Your task to perform on an android device: Open Maps and search for coffee Image 0: 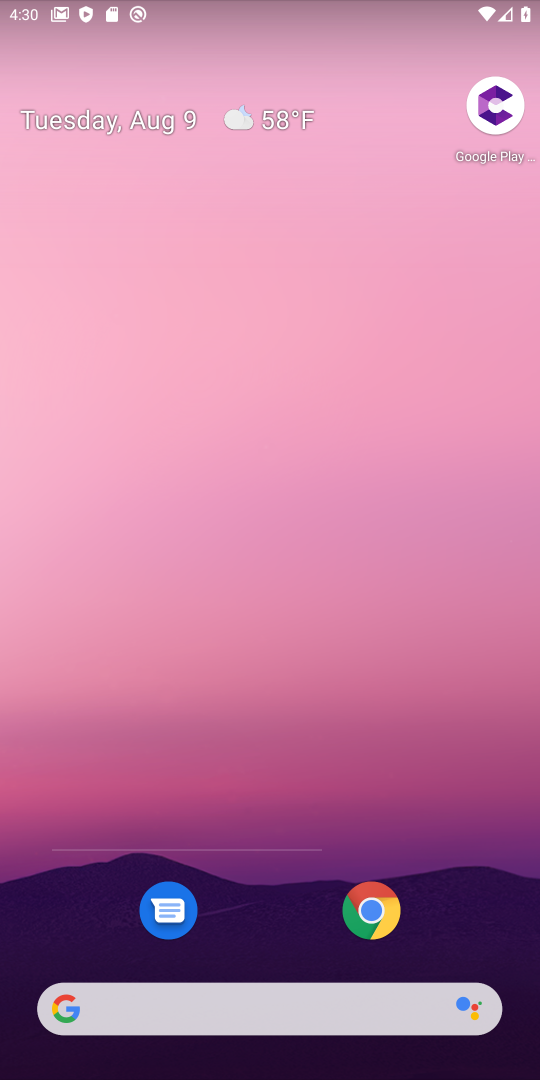
Step 0: press back button
Your task to perform on an android device: Open Maps and search for coffee Image 1: 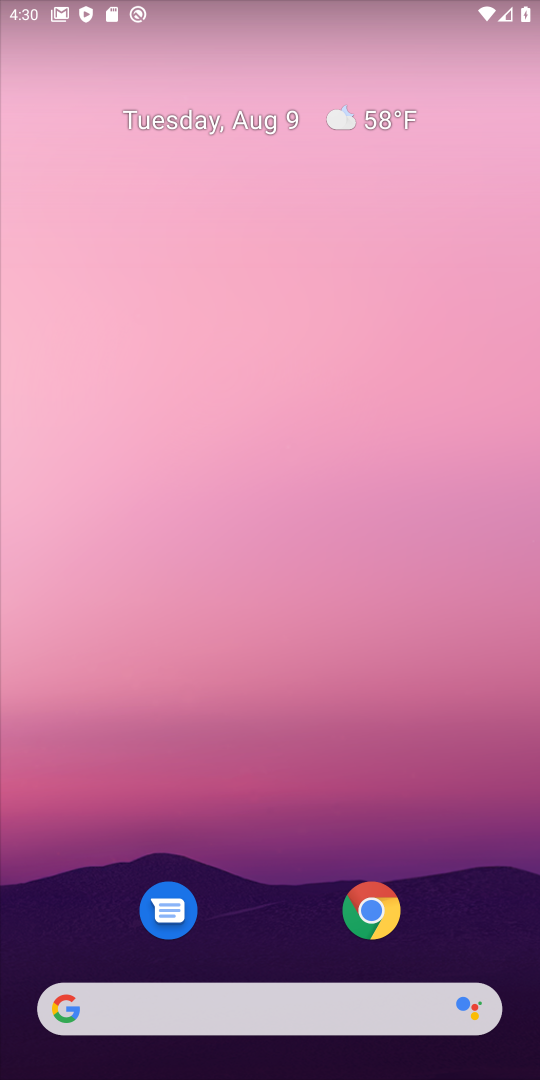
Step 1: drag from (198, 760) to (227, 369)
Your task to perform on an android device: Open Maps and search for coffee Image 2: 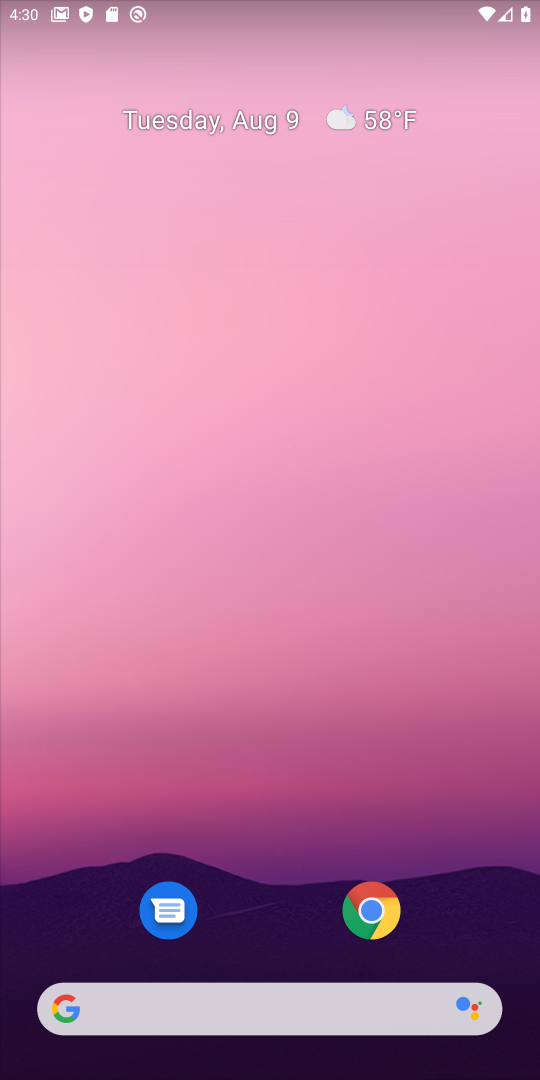
Step 2: drag from (302, 925) to (265, 256)
Your task to perform on an android device: Open Maps and search for coffee Image 3: 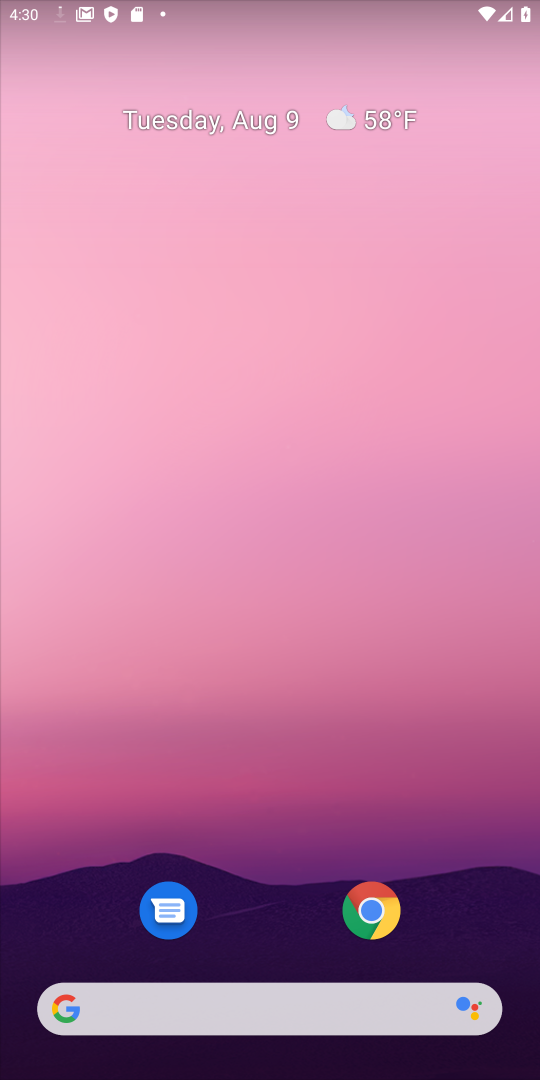
Step 3: drag from (265, 801) to (265, 223)
Your task to perform on an android device: Open Maps and search for coffee Image 4: 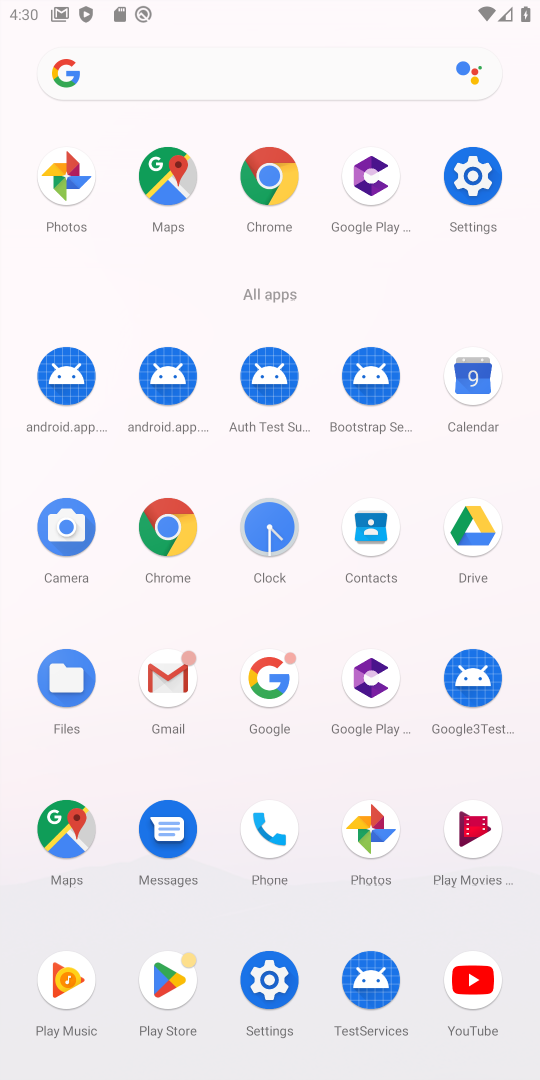
Step 4: drag from (289, 931) to (287, 315)
Your task to perform on an android device: Open Maps and search for coffee Image 5: 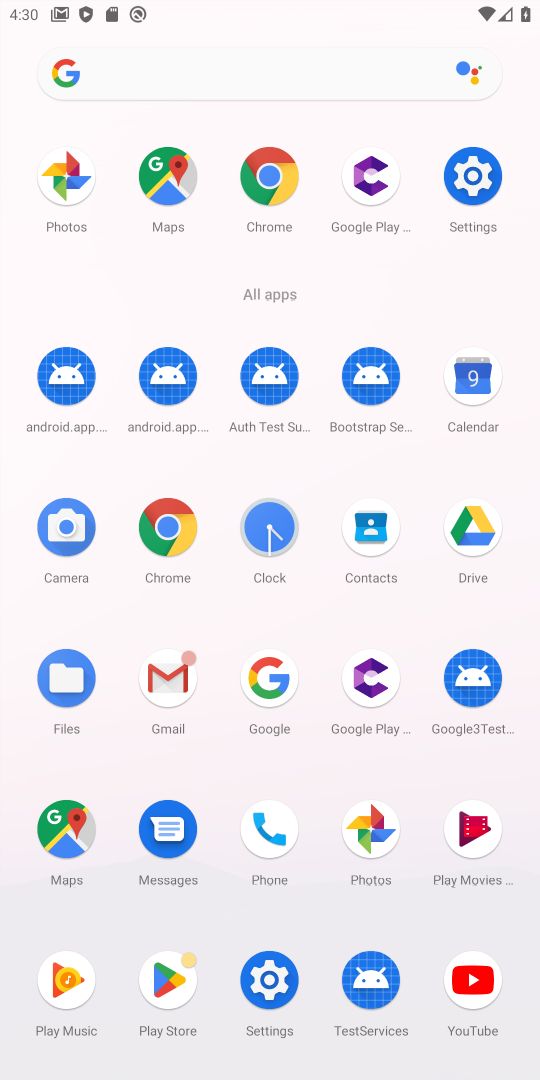
Step 5: click (472, 191)
Your task to perform on an android device: Open Maps and search for coffee Image 6: 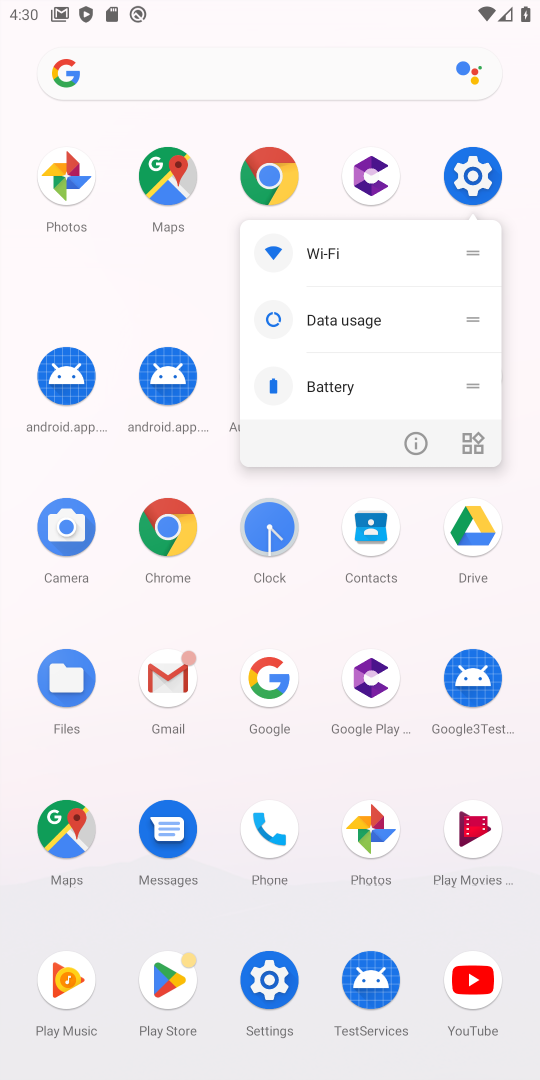
Step 6: click (472, 191)
Your task to perform on an android device: Open Maps and search for coffee Image 7: 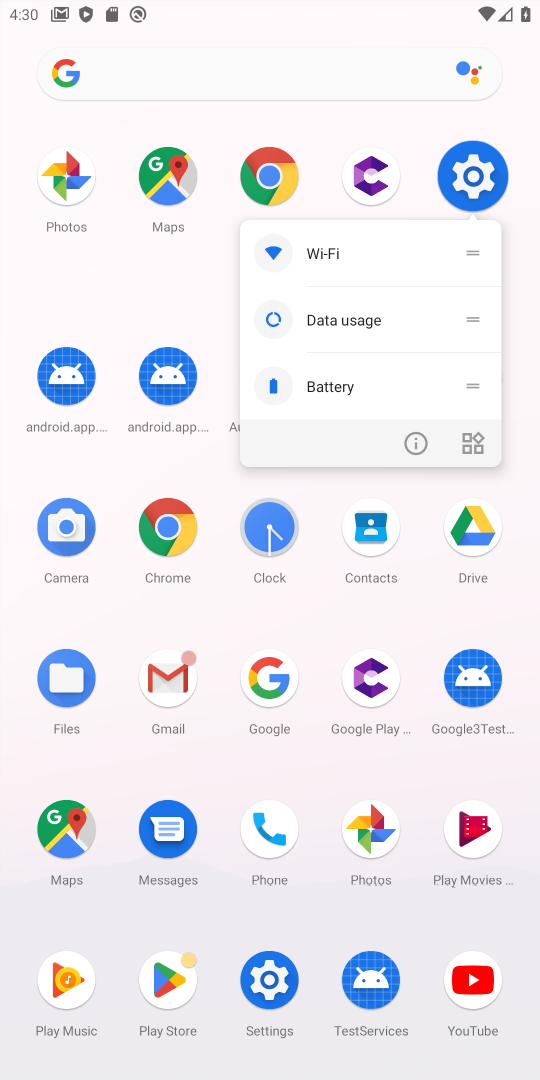
Step 7: click (472, 189)
Your task to perform on an android device: Open Maps and search for coffee Image 8: 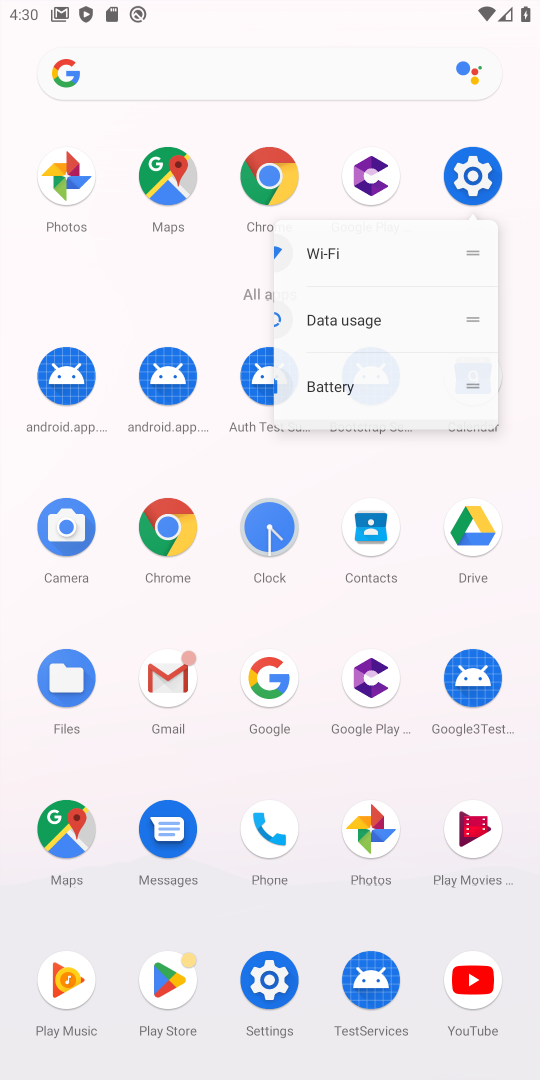
Step 8: click (472, 189)
Your task to perform on an android device: Open Maps and search for coffee Image 9: 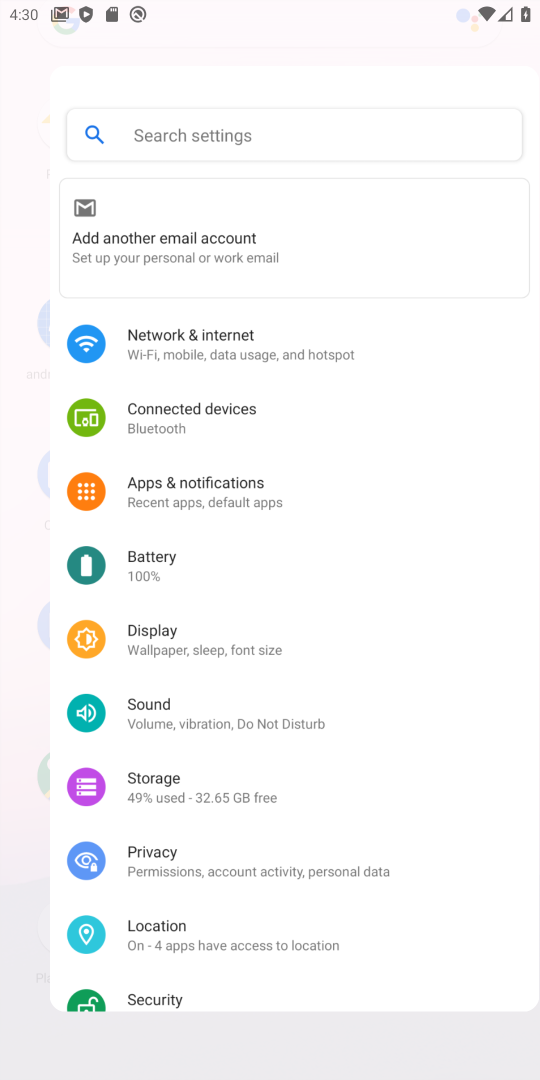
Step 9: click (472, 187)
Your task to perform on an android device: Open Maps and search for coffee Image 10: 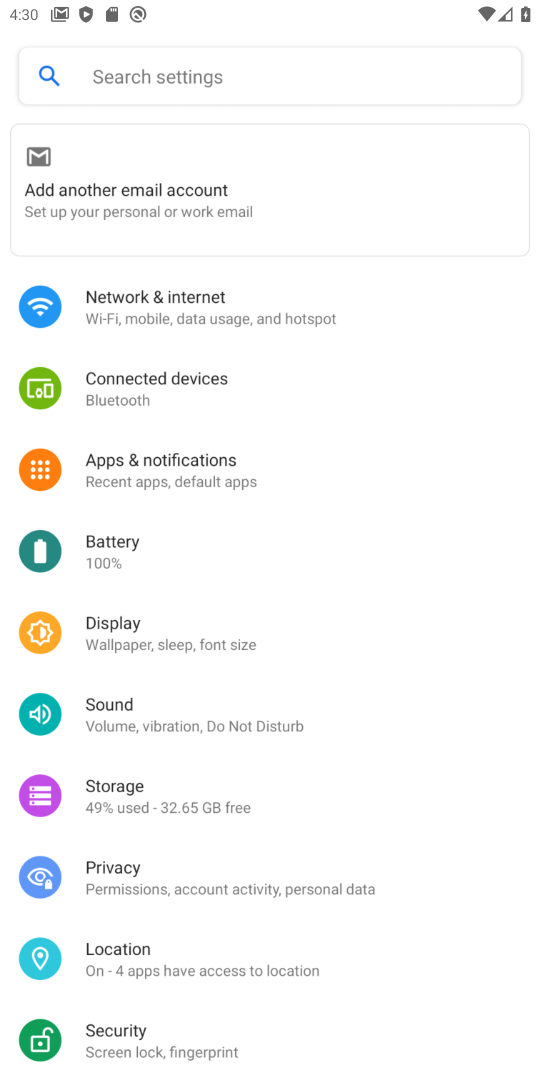
Step 10: click (465, 195)
Your task to perform on an android device: Open Maps and search for coffee Image 11: 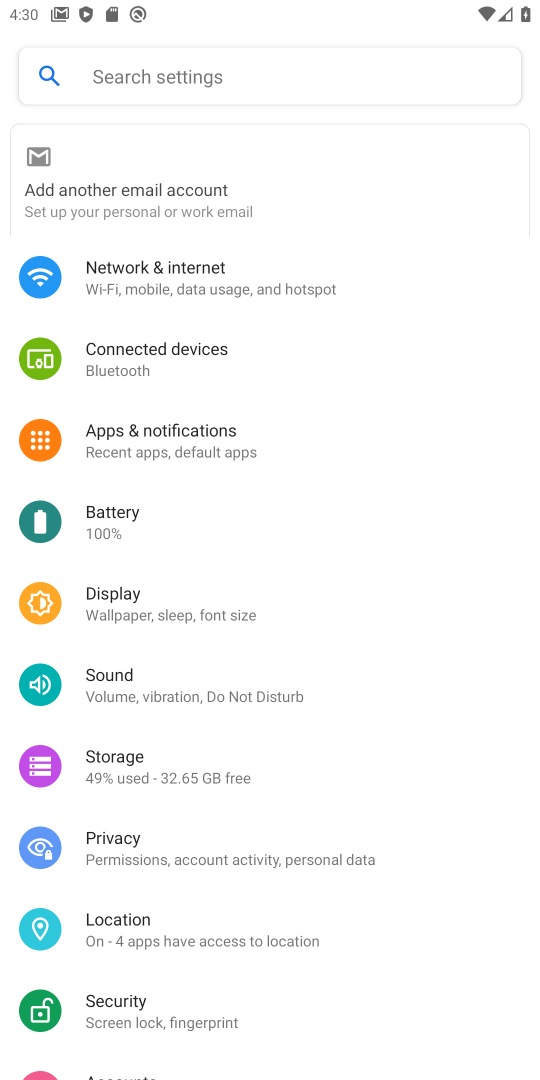
Step 11: click (472, 167)
Your task to perform on an android device: Open Maps and search for coffee Image 12: 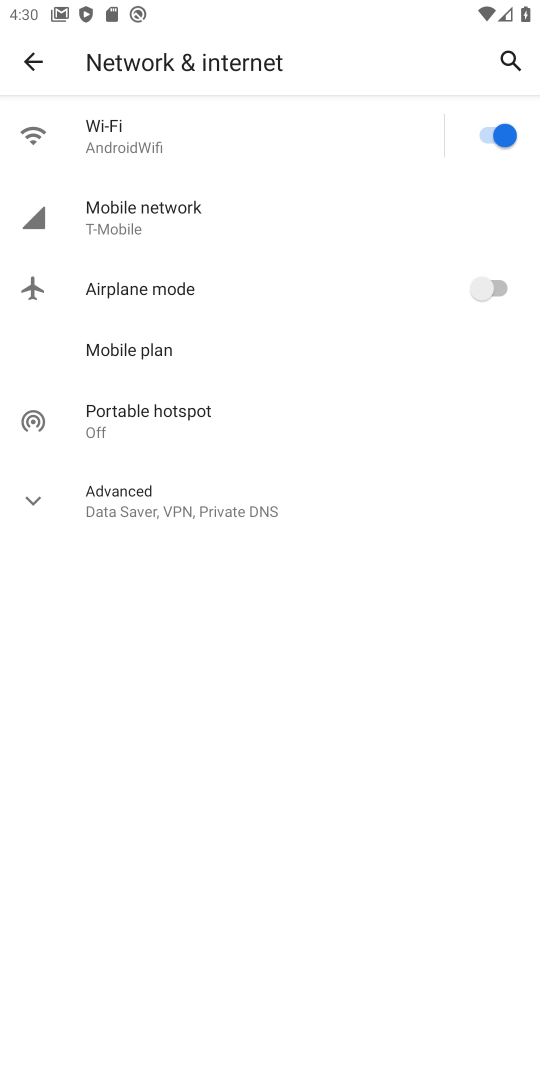
Step 12: click (34, 73)
Your task to perform on an android device: Open Maps and search for coffee Image 13: 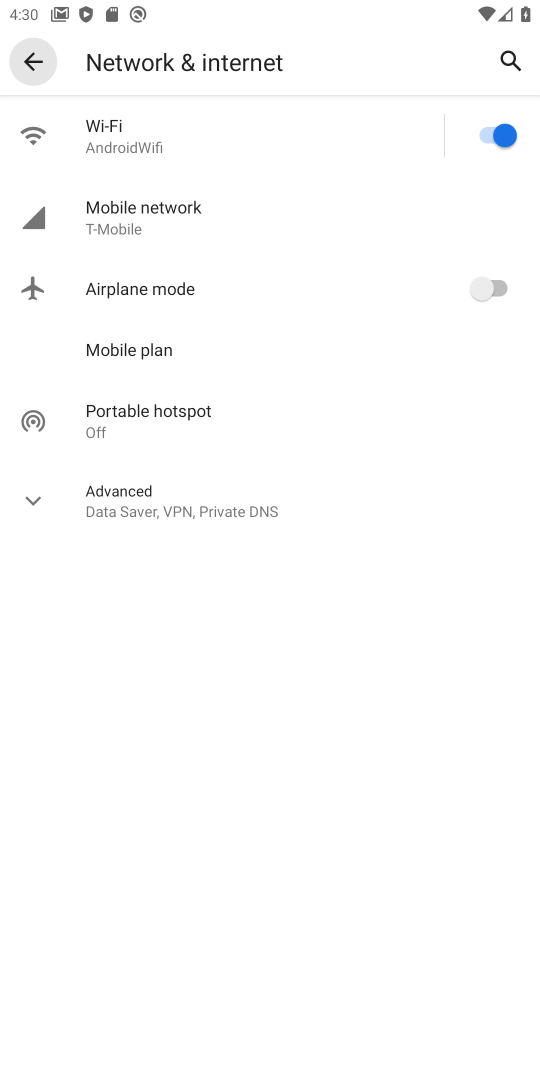
Step 13: click (33, 70)
Your task to perform on an android device: Open Maps and search for coffee Image 14: 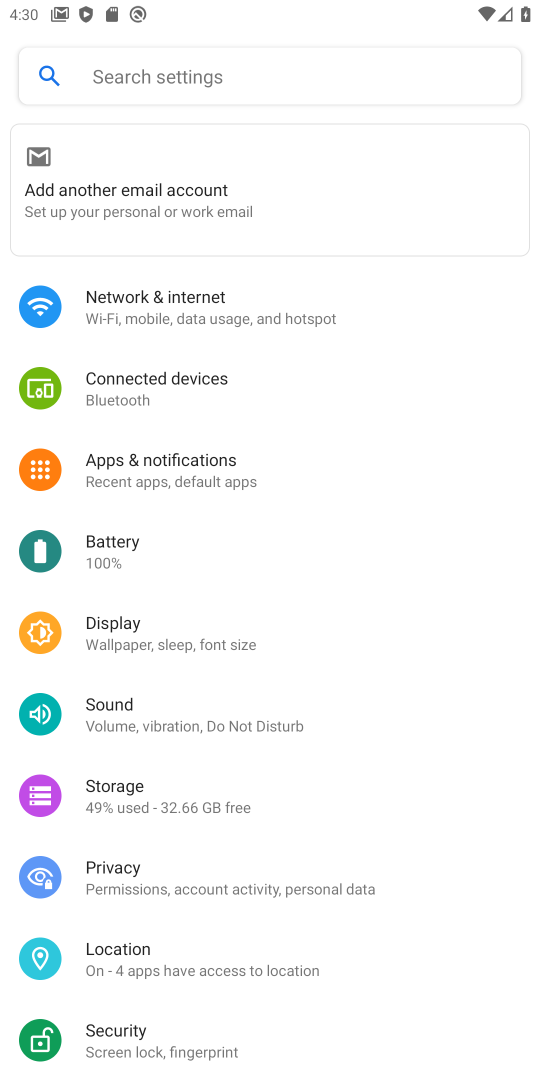
Step 14: click (101, 616)
Your task to perform on an android device: Open Maps and search for coffee Image 15: 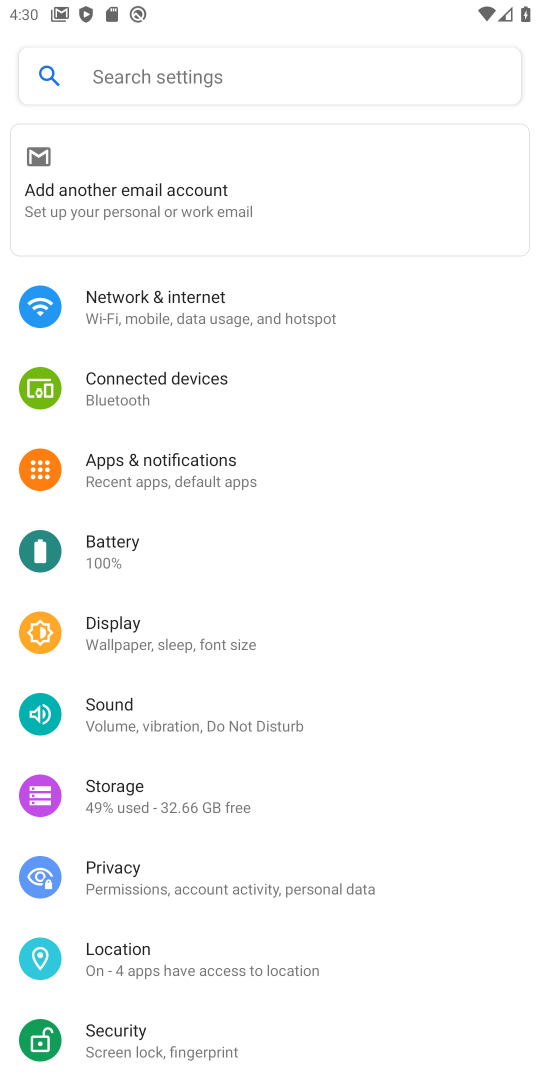
Step 15: click (127, 611)
Your task to perform on an android device: Open Maps and search for coffee Image 16: 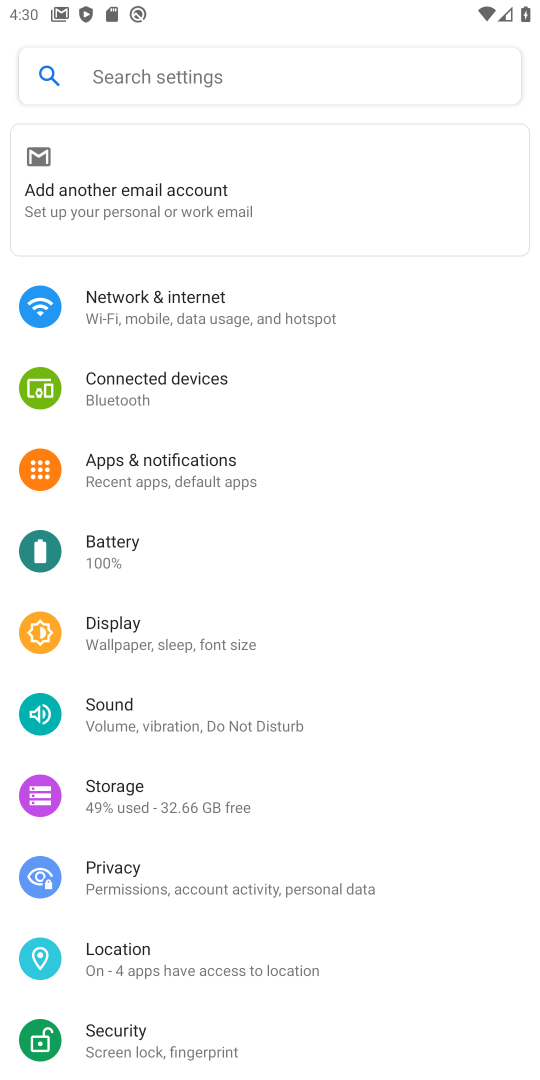
Step 16: click (127, 636)
Your task to perform on an android device: Open Maps and search for coffee Image 17: 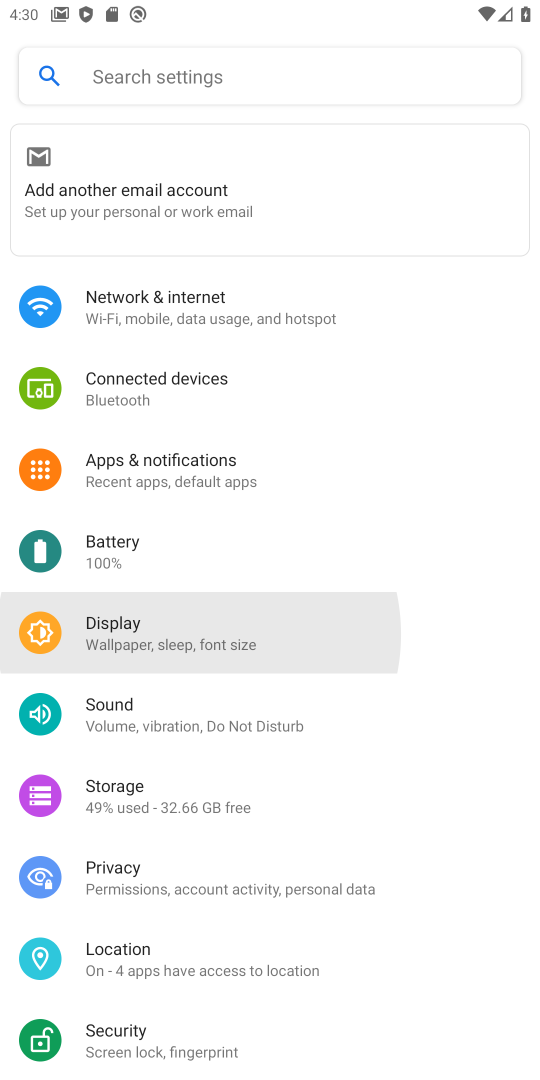
Step 17: click (127, 637)
Your task to perform on an android device: Open Maps and search for coffee Image 18: 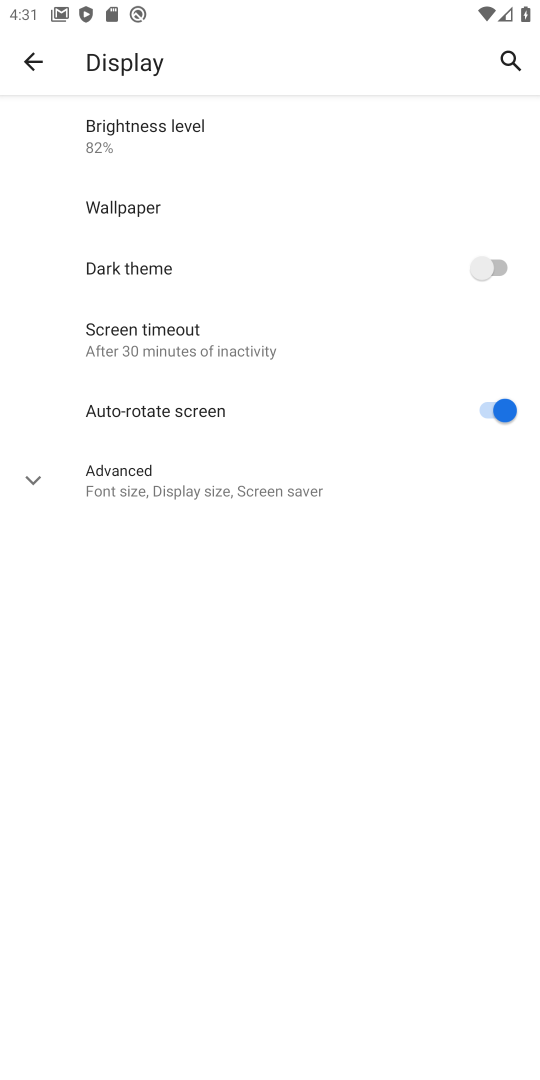
Step 18: click (125, 616)
Your task to perform on an android device: Open Maps and search for coffee Image 19: 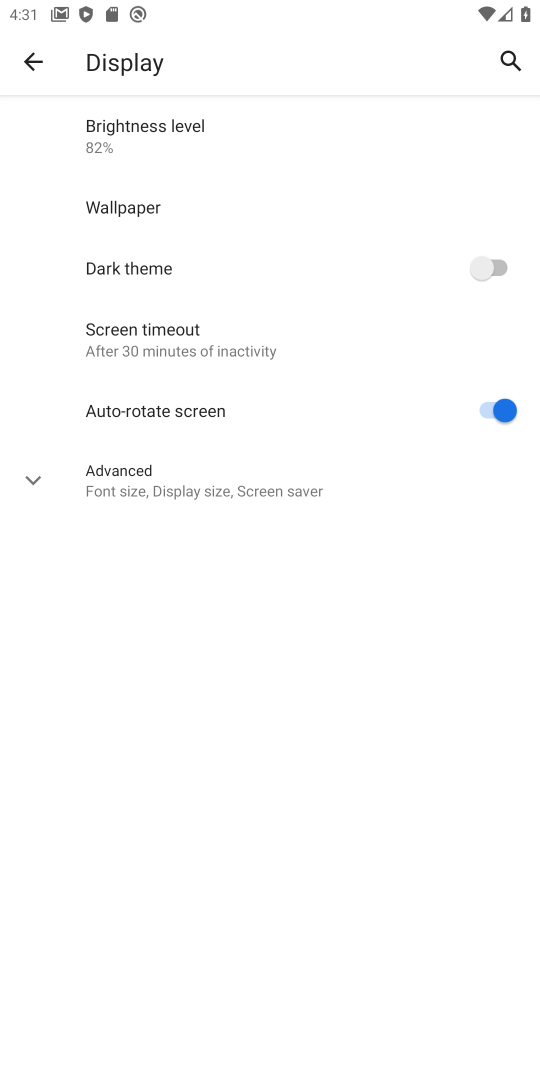
Step 19: click (214, 502)
Your task to perform on an android device: Open Maps and search for coffee Image 20: 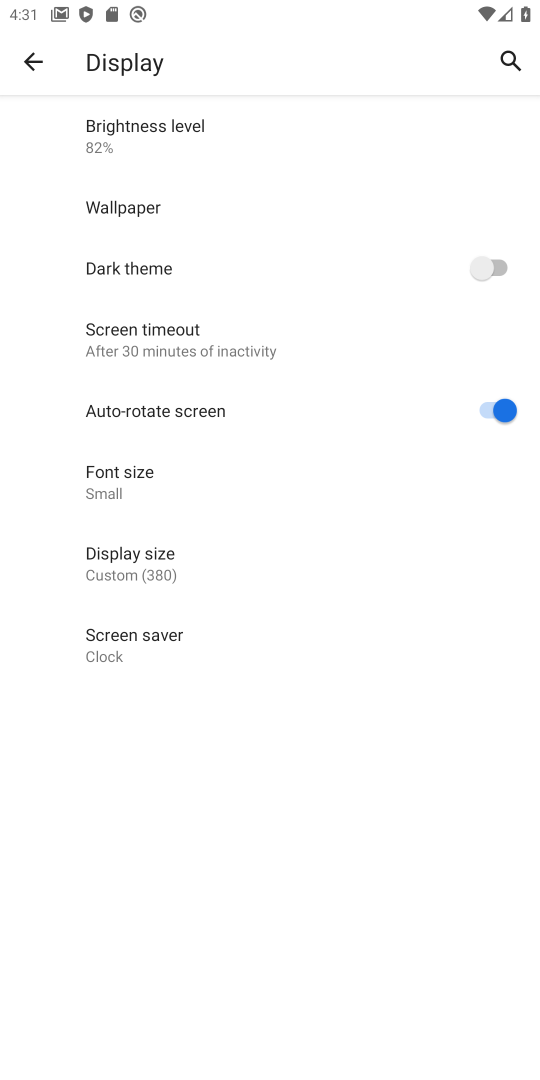
Step 20: click (113, 464)
Your task to perform on an android device: Open Maps and search for coffee Image 21: 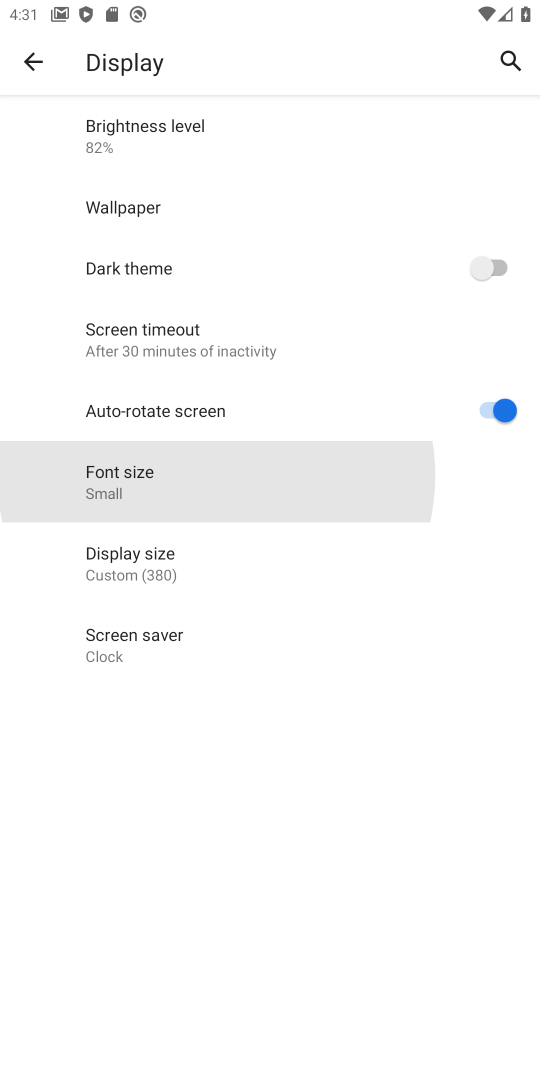
Step 21: click (112, 465)
Your task to perform on an android device: Open Maps and search for coffee Image 22: 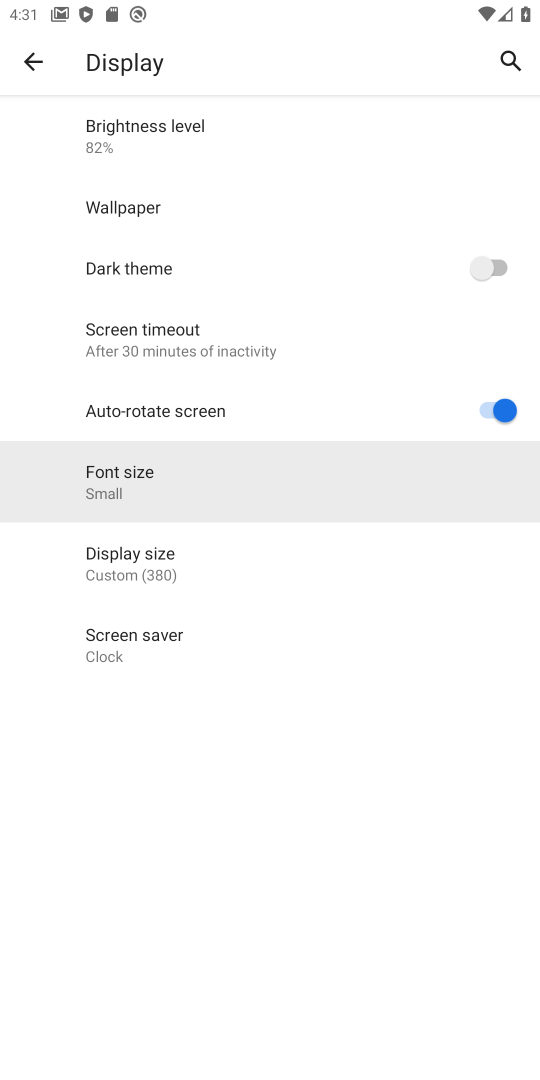
Step 22: click (112, 466)
Your task to perform on an android device: Open Maps and search for coffee Image 23: 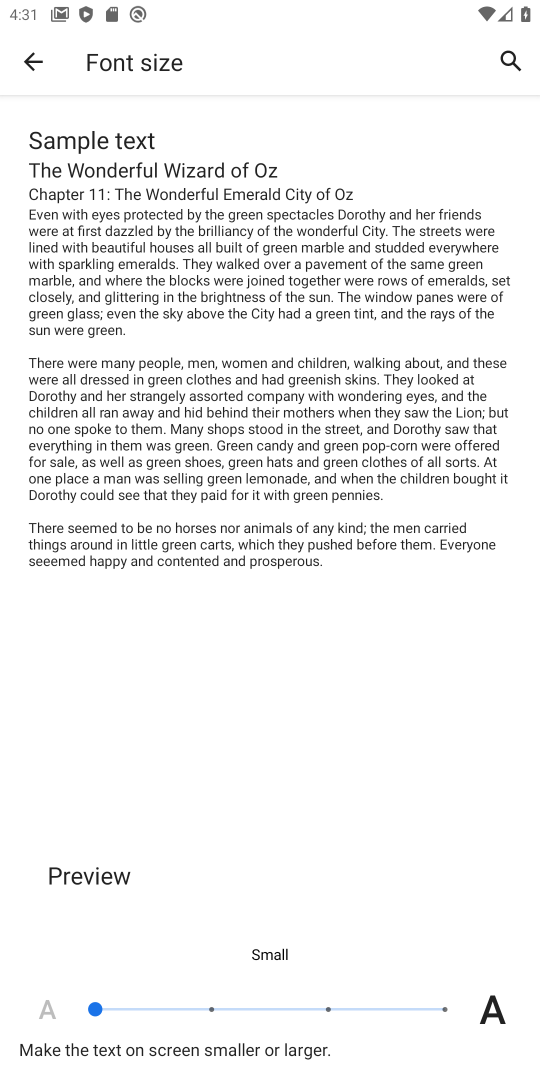
Step 23: click (199, 1008)
Your task to perform on an android device: Open Maps and search for coffee Image 24: 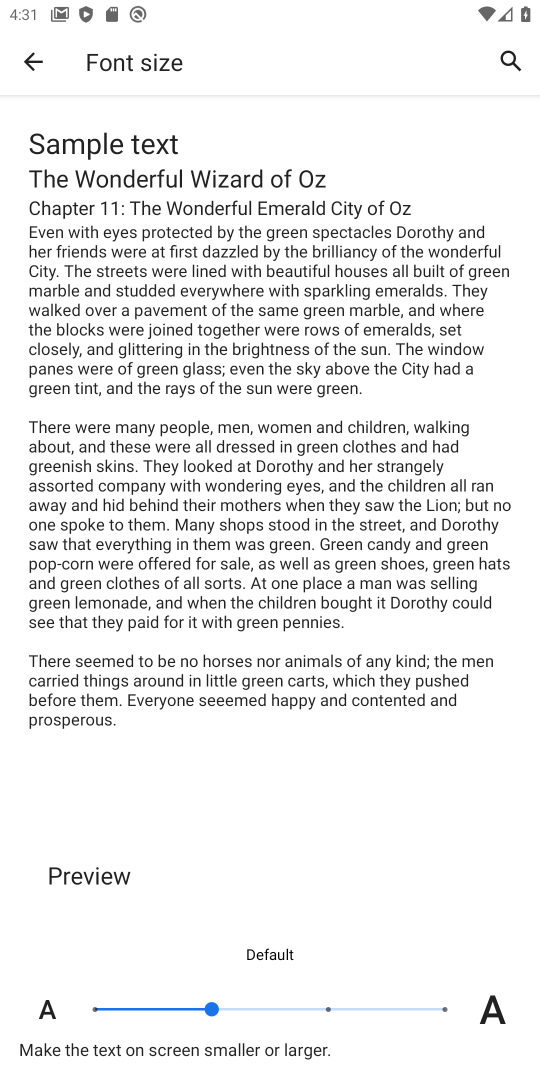
Step 24: click (204, 1008)
Your task to perform on an android device: Open Maps and search for coffee Image 25: 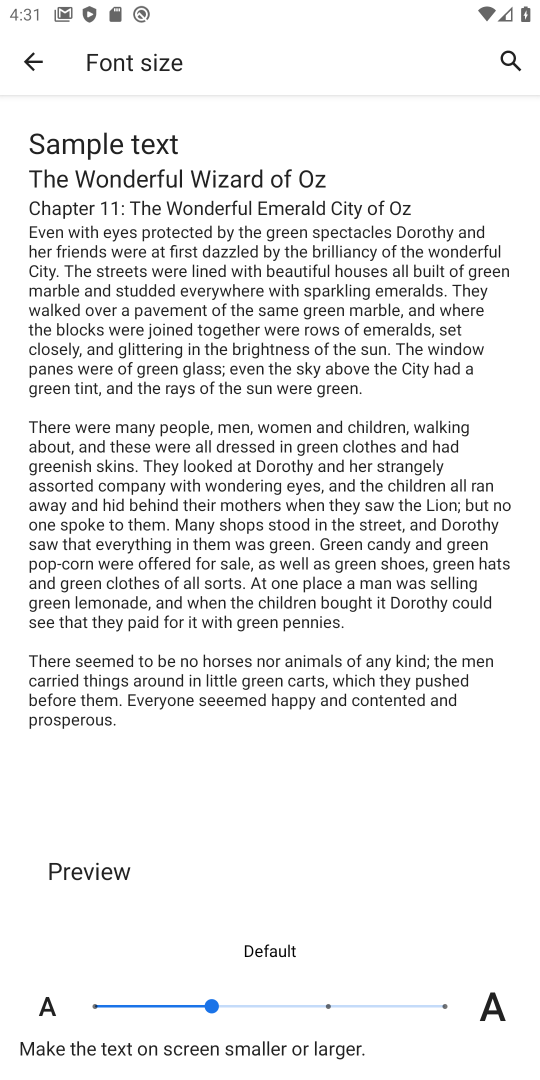
Step 25: click (318, 1015)
Your task to perform on an android device: Open Maps and search for coffee Image 26: 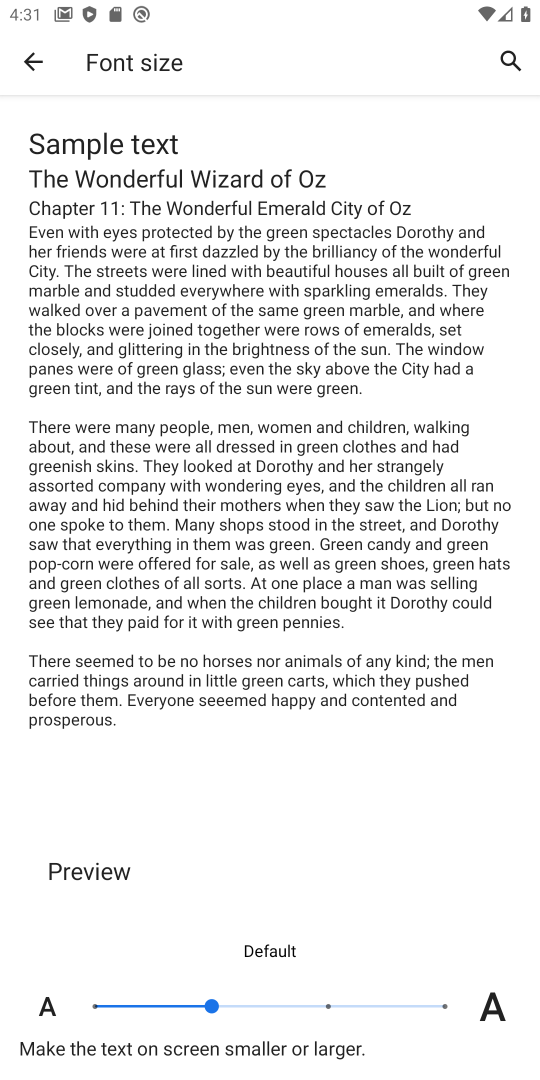
Step 26: click (320, 1012)
Your task to perform on an android device: Open Maps and search for coffee Image 27: 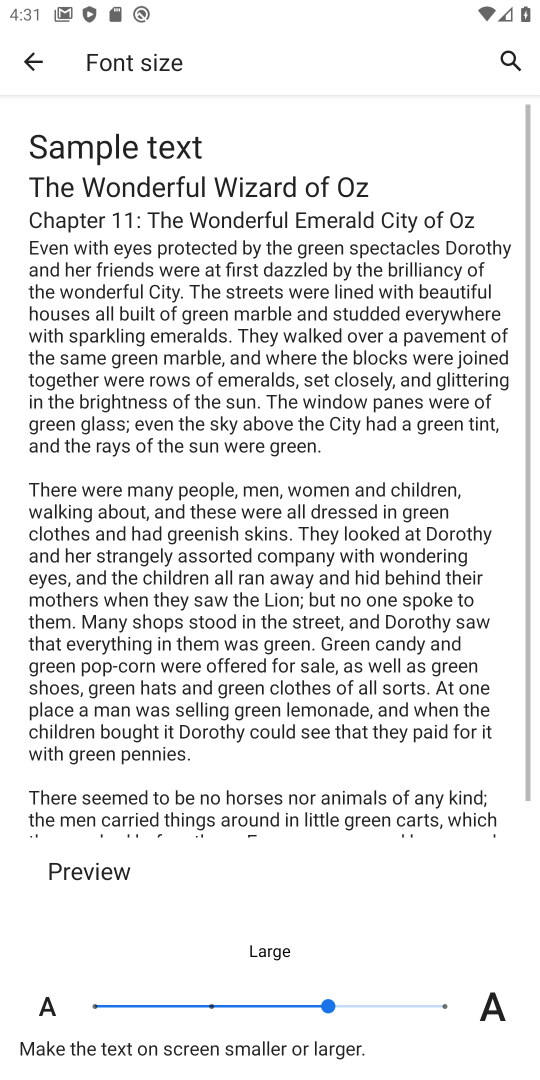
Step 27: click (320, 1012)
Your task to perform on an android device: Open Maps and search for coffee Image 28: 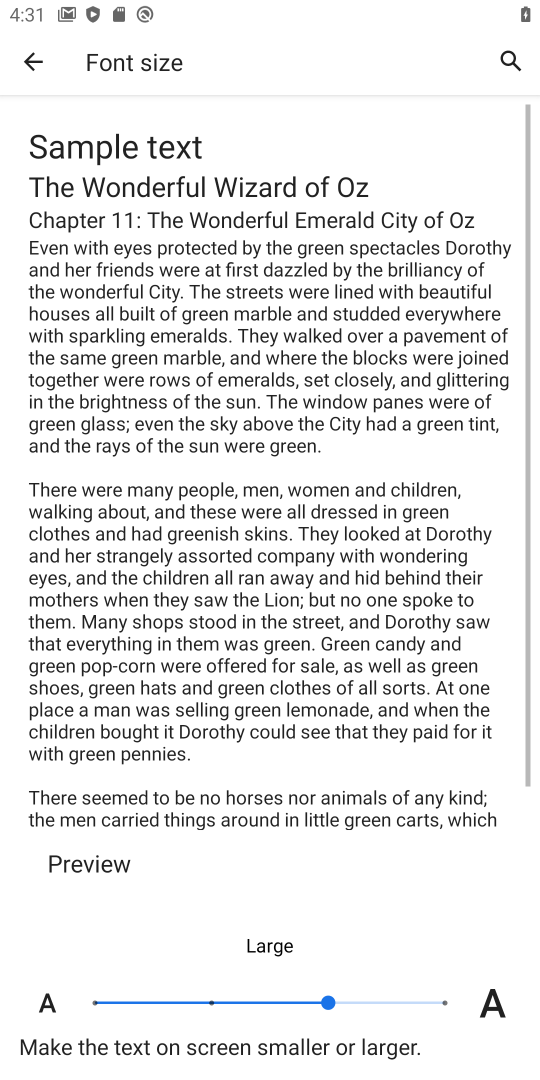
Step 28: click (440, 1002)
Your task to perform on an android device: Open Maps and search for coffee Image 29: 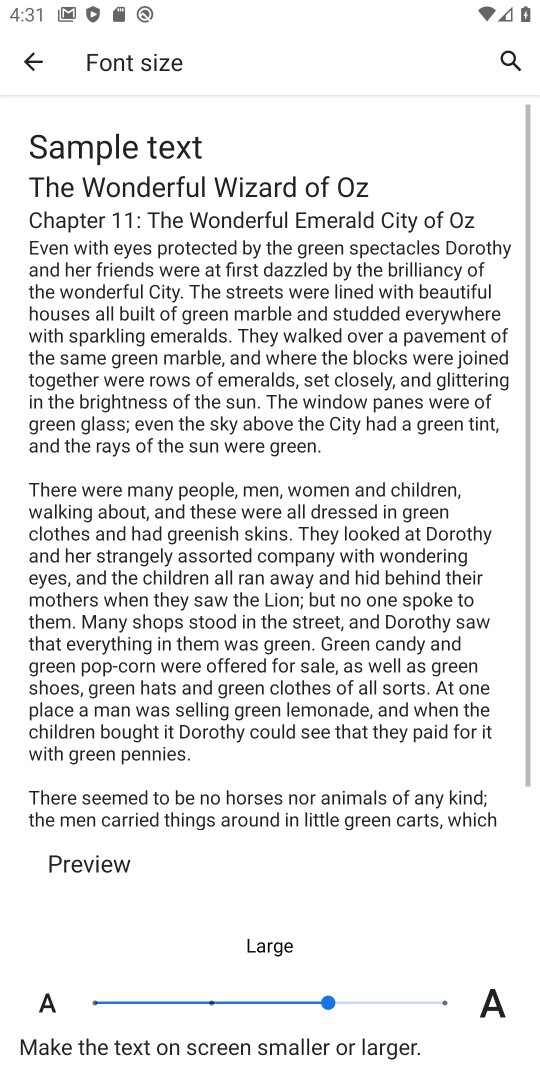
Step 29: click (441, 1001)
Your task to perform on an android device: Open Maps and search for coffee Image 30: 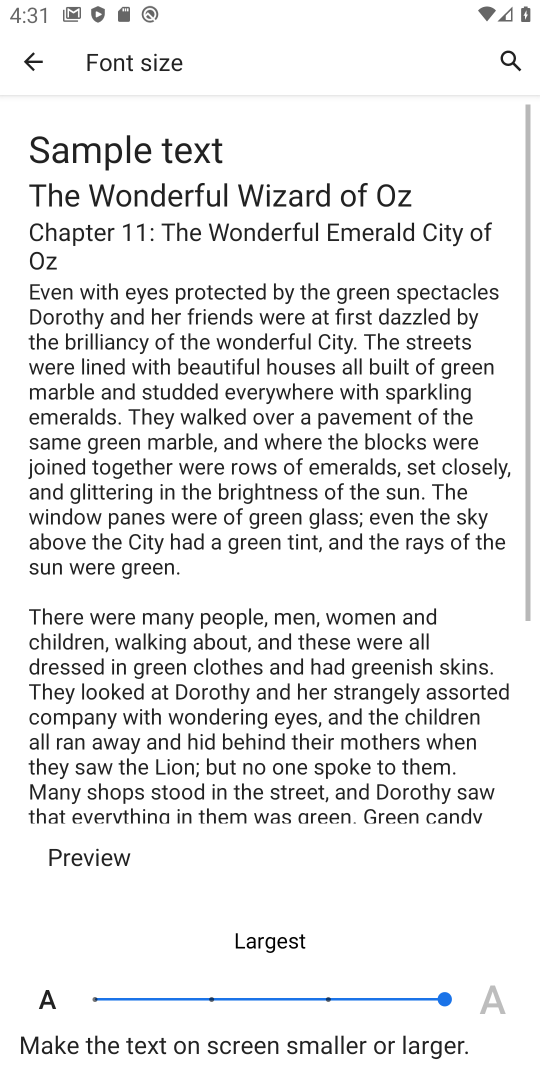
Step 30: task complete